Your task to perform on an android device: turn off data saver in the chrome app Image 0: 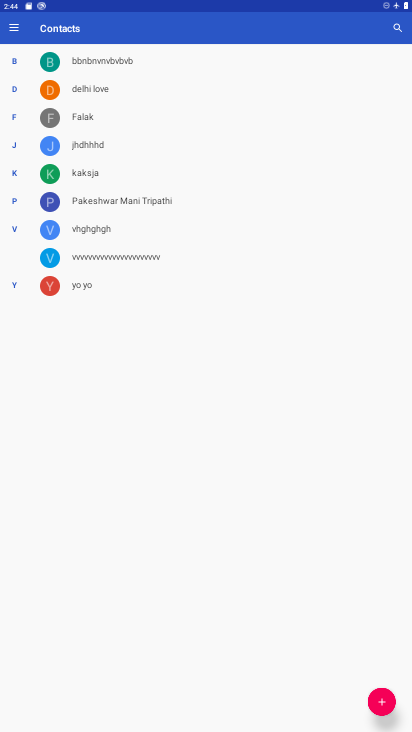
Step 0: press home button
Your task to perform on an android device: turn off data saver in the chrome app Image 1: 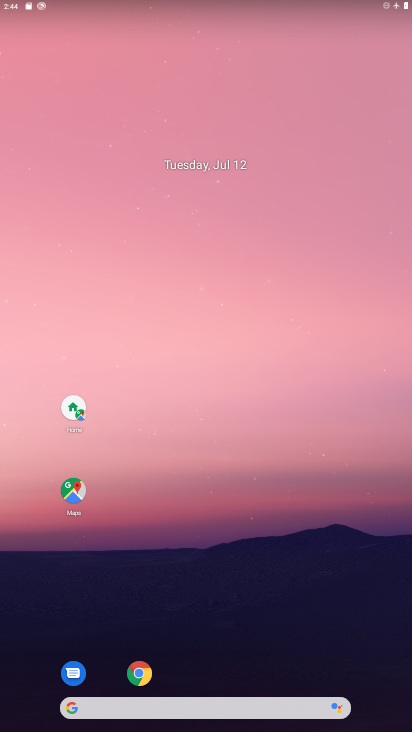
Step 1: drag from (259, 624) to (264, 202)
Your task to perform on an android device: turn off data saver in the chrome app Image 2: 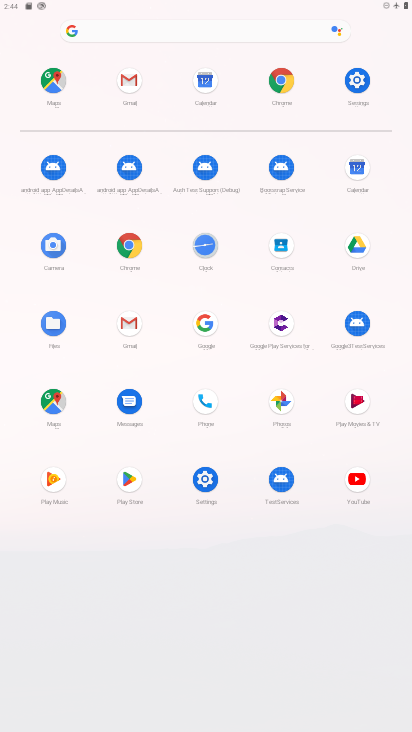
Step 2: click (280, 82)
Your task to perform on an android device: turn off data saver in the chrome app Image 3: 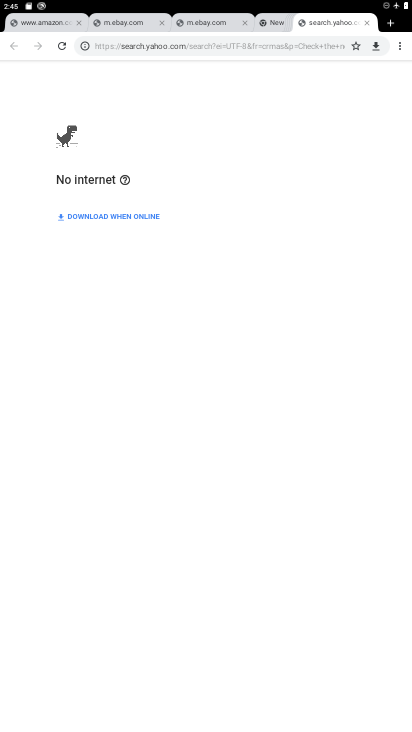
Step 3: click (403, 55)
Your task to perform on an android device: turn off data saver in the chrome app Image 4: 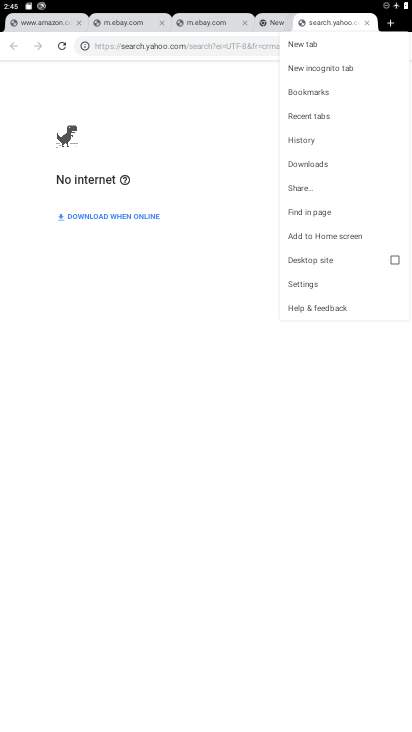
Step 4: click (312, 274)
Your task to perform on an android device: turn off data saver in the chrome app Image 5: 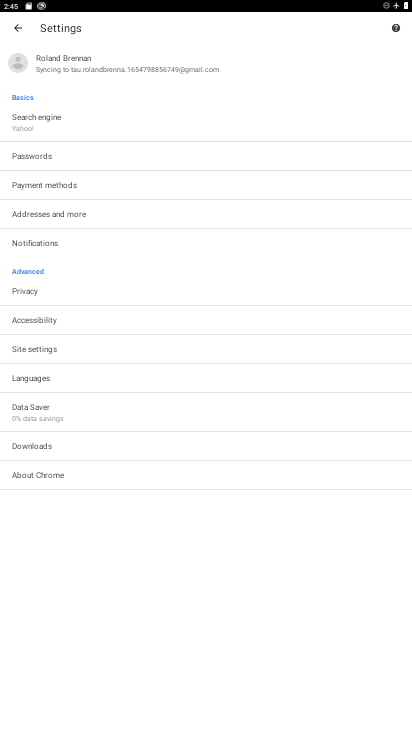
Step 5: click (73, 396)
Your task to perform on an android device: turn off data saver in the chrome app Image 6: 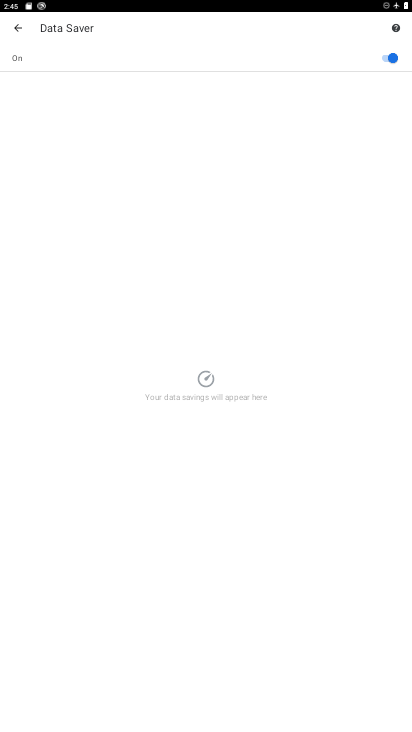
Step 6: click (382, 59)
Your task to perform on an android device: turn off data saver in the chrome app Image 7: 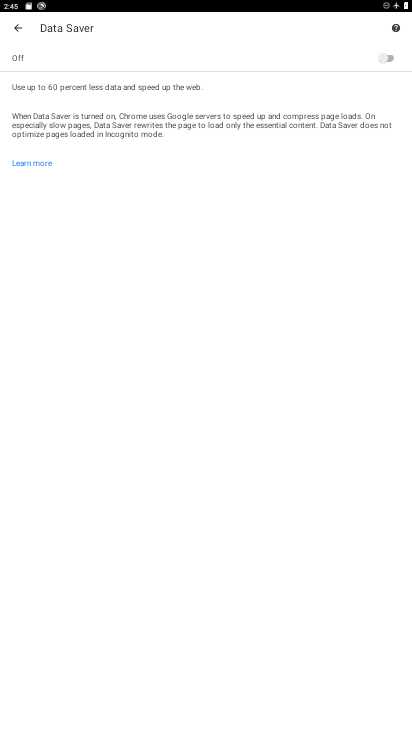
Step 7: task complete